Your task to perform on an android device: turn off improve location accuracy Image 0: 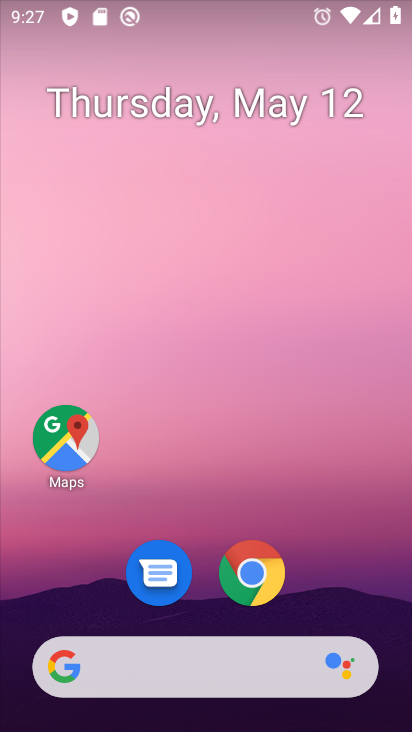
Step 0: drag from (335, 566) to (240, 74)
Your task to perform on an android device: turn off improve location accuracy Image 1: 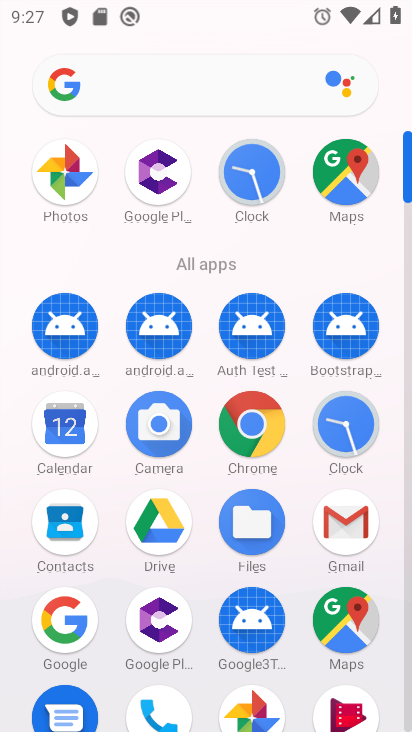
Step 1: drag from (212, 574) to (218, 327)
Your task to perform on an android device: turn off improve location accuracy Image 2: 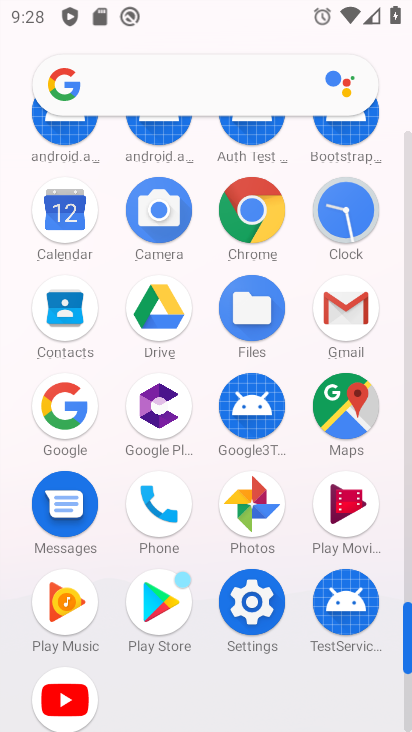
Step 2: click (252, 602)
Your task to perform on an android device: turn off improve location accuracy Image 3: 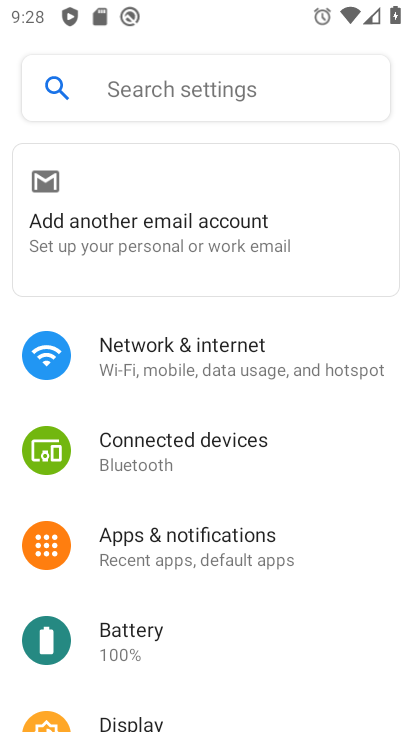
Step 3: drag from (213, 607) to (233, 421)
Your task to perform on an android device: turn off improve location accuracy Image 4: 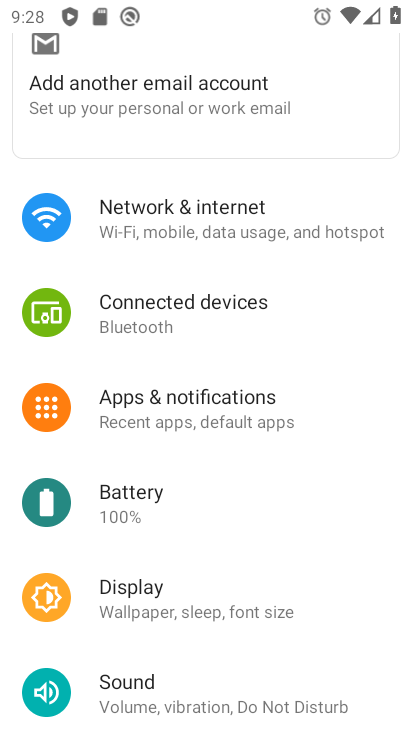
Step 4: drag from (220, 555) to (271, 418)
Your task to perform on an android device: turn off improve location accuracy Image 5: 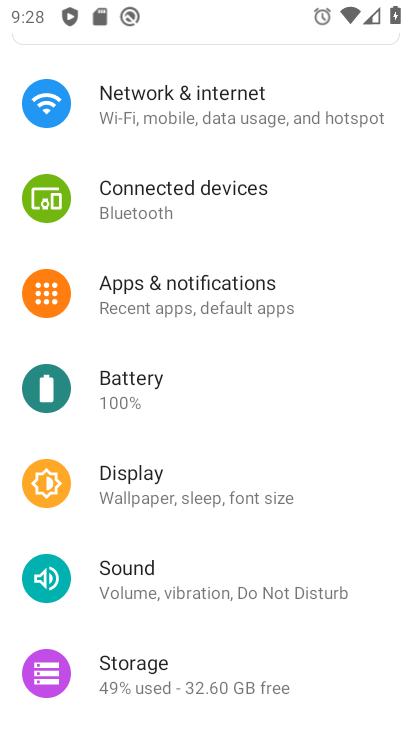
Step 5: drag from (188, 615) to (219, 486)
Your task to perform on an android device: turn off improve location accuracy Image 6: 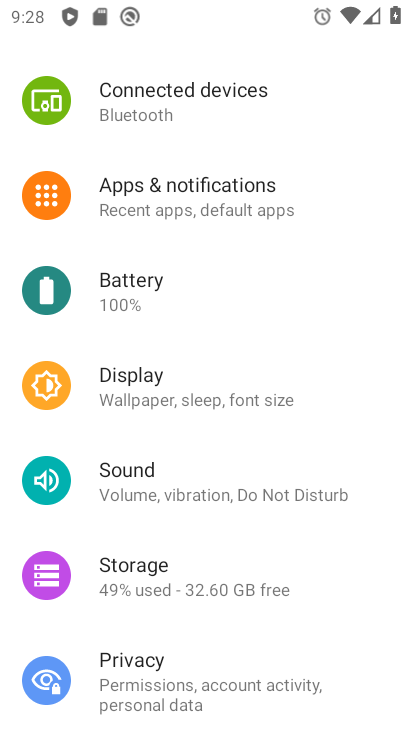
Step 6: drag from (166, 618) to (255, 467)
Your task to perform on an android device: turn off improve location accuracy Image 7: 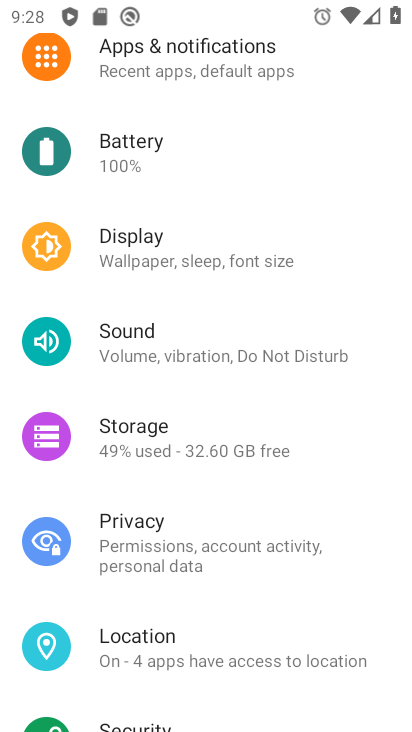
Step 7: drag from (195, 605) to (255, 461)
Your task to perform on an android device: turn off improve location accuracy Image 8: 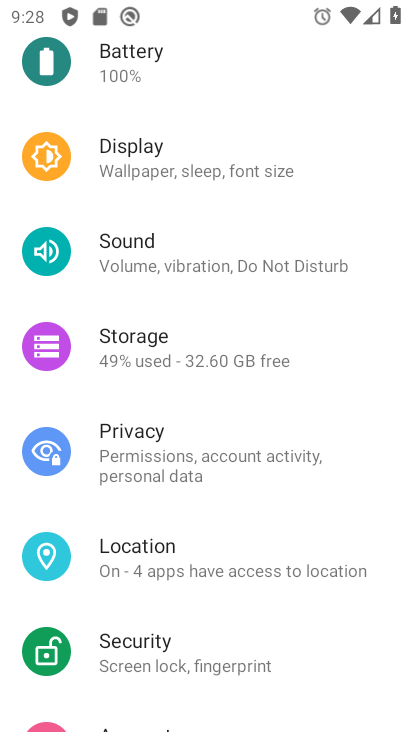
Step 8: click (154, 548)
Your task to perform on an android device: turn off improve location accuracy Image 9: 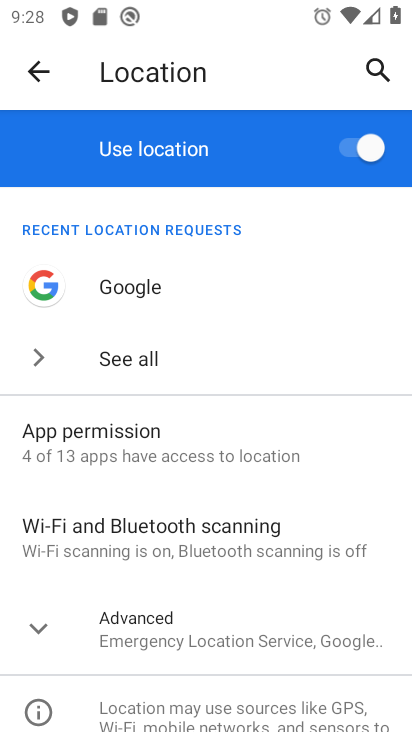
Step 9: click (192, 638)
Your task to perform on an android device: turn off improve location accuracy Image 10: 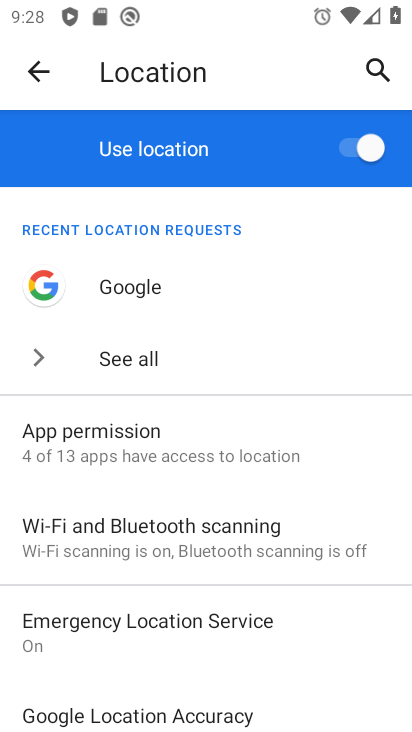
Step 10: drag from (166, 652) to (289, 463)
Your task to perform on an android device: turn off improve location accuracy Image 11: 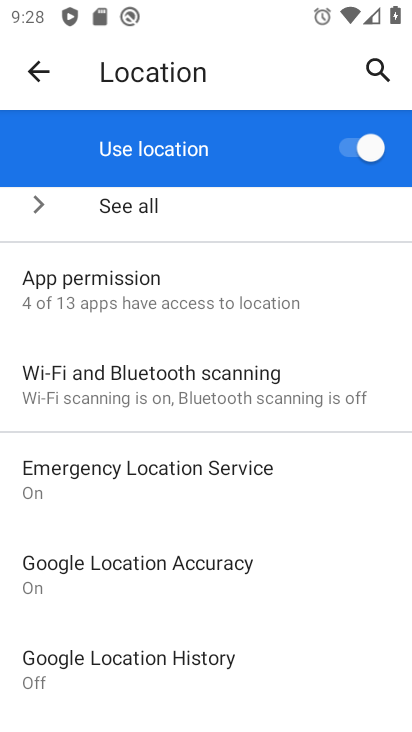
Step 11: click (214, 562)
Your task to perform on an android device: turn off improve location accuracy Image 12: 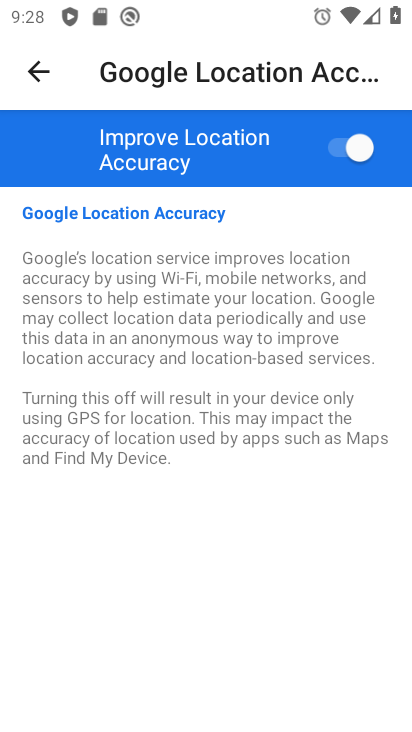
Step 12: click (337, 155)
Your task to perform on an android device: turn off improve location accuracy Image 13: 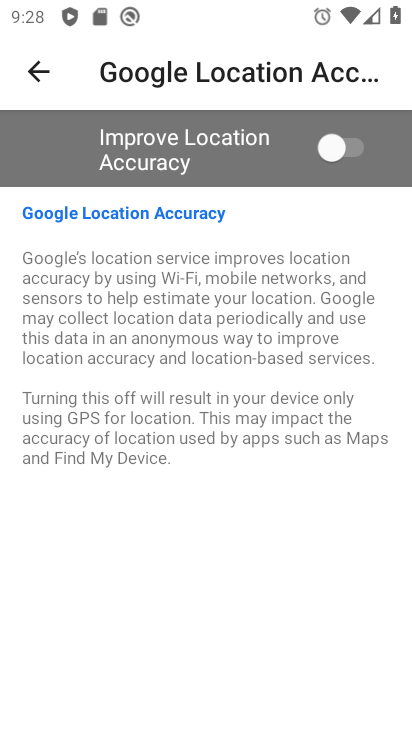
Step 13: task complete